Your task to perform on an android device: Search for a runner rug on Crate & Barrel Image 0: 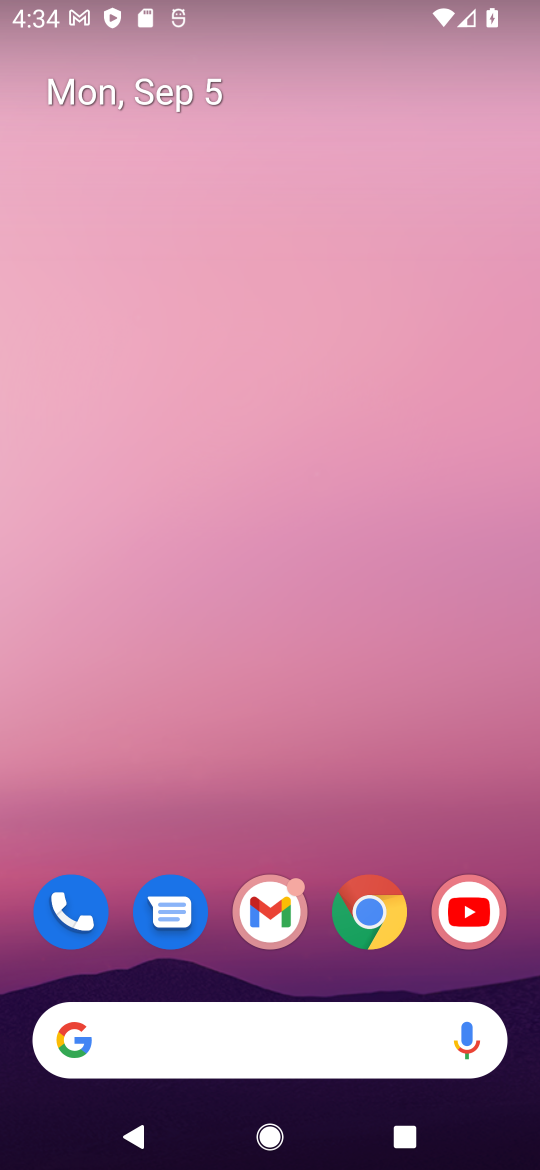
Step 0: click (366, 928)
Your task to perform on an android device: Search for a runner rug on Crate & Barrel Image 1: 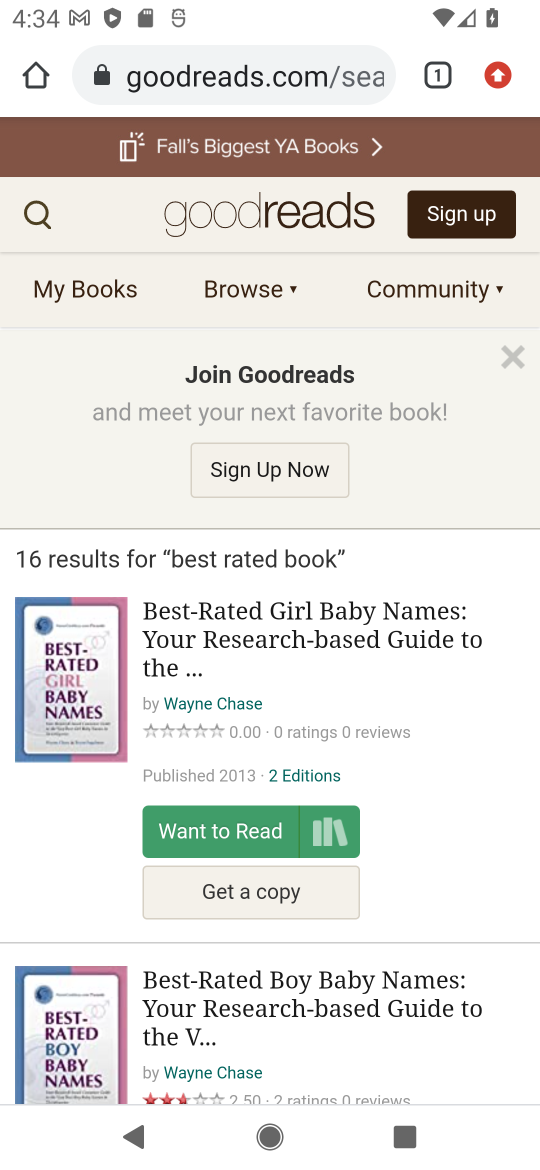
Step 1: click (192, 89)
Your task to perform on an android device: Search for a runner rug on Crate & Barrel Image 2: 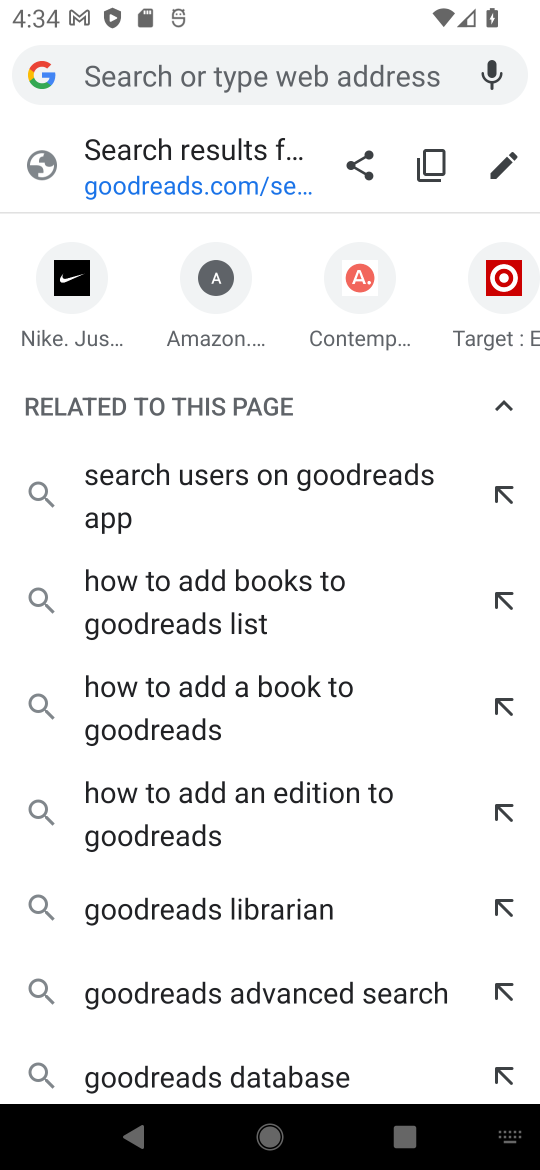
Step 2: type "crate & barrel"
Your task to perform on an android device: Search for a runner rug on Crate & Barrel Image 3: 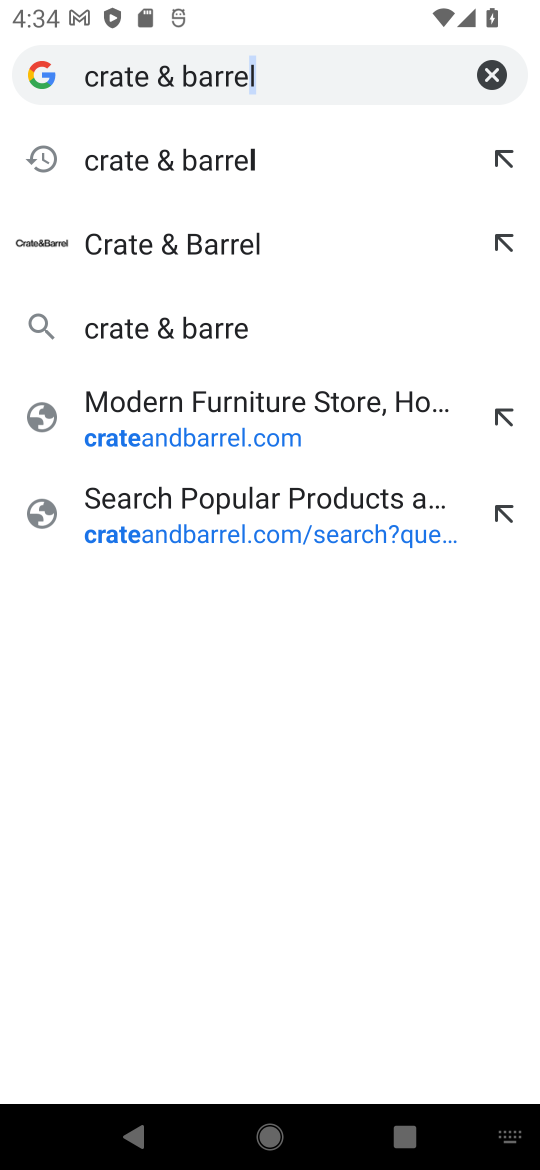
Step 3: type ""
Your task to perform on an android device: Search for a runner rug on Crate & Barrel Image 4: 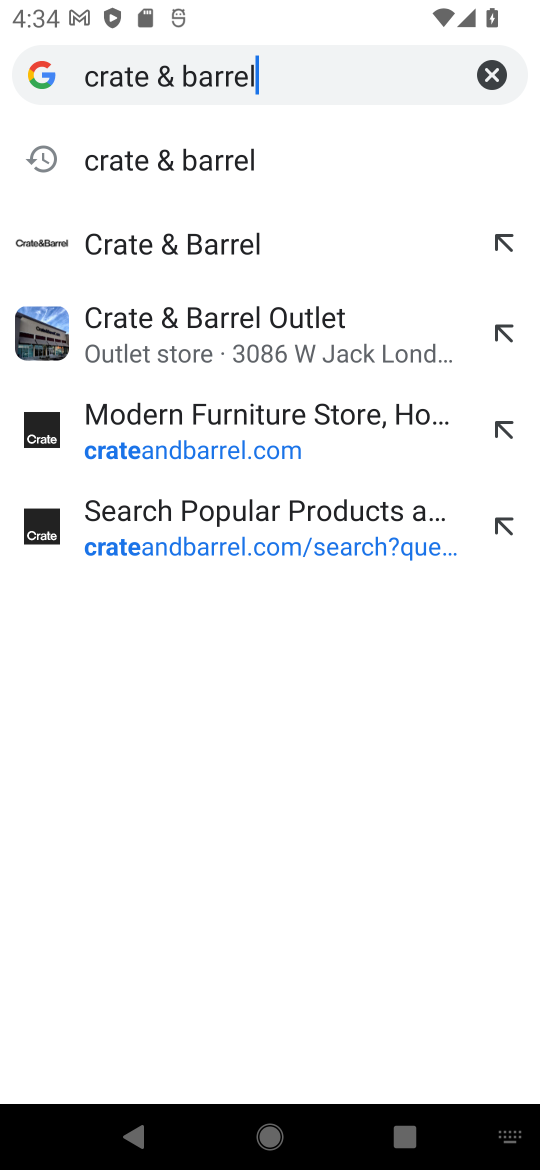
Step 4: press enter
Your task to perform on an android device: Search for a runner rug on Crate & Barrel Image 5: 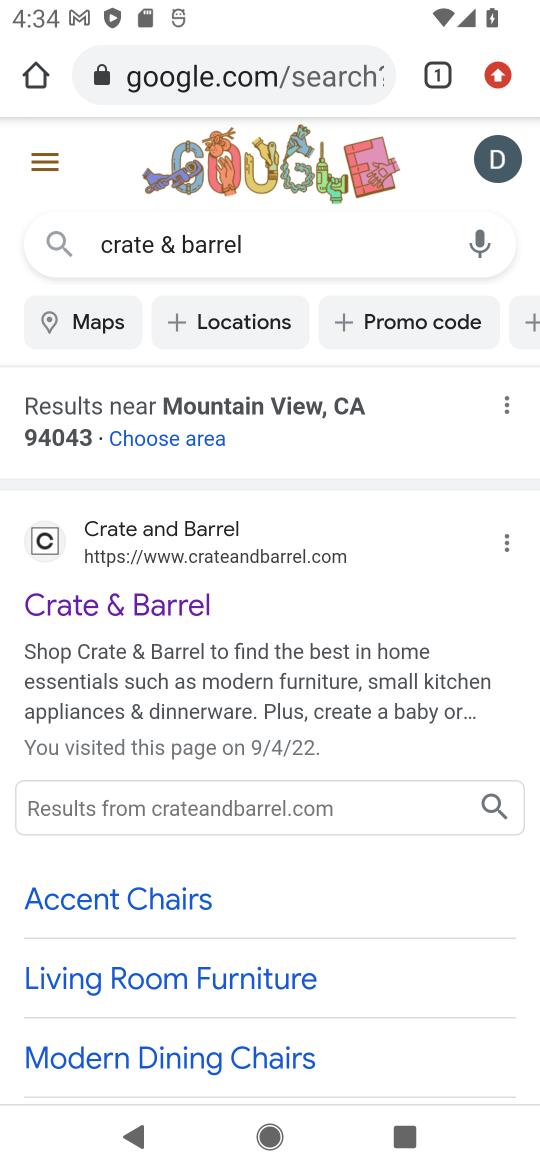
Step 5: click (143, 595)
Your task to perform on an android device: Search for a runner rug on Crate & Barrel Image 6: 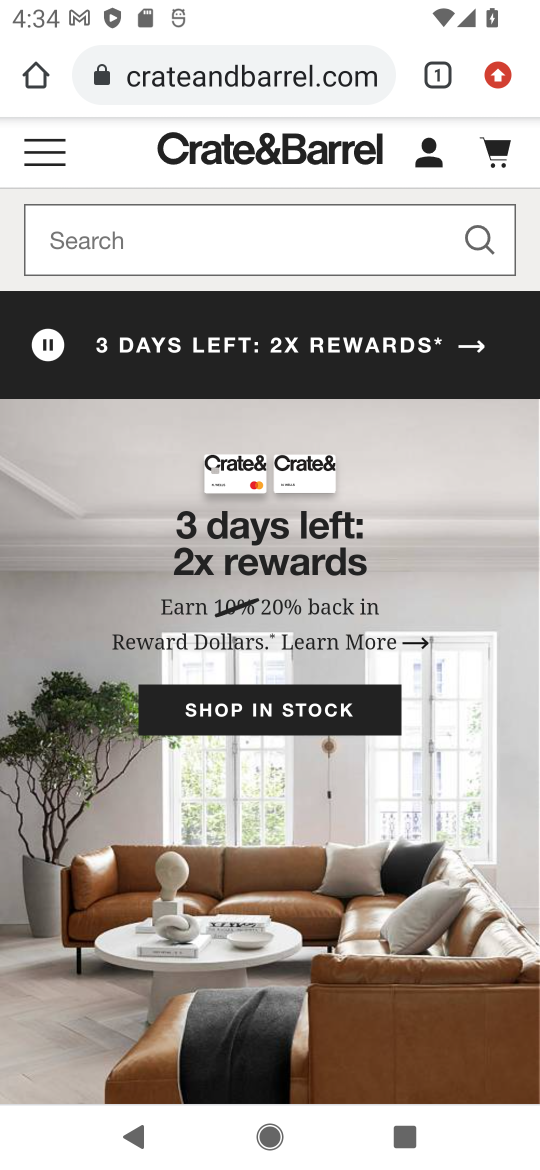
Step 6: click (154, 215)
Your task to perform on an android device: Search for a runner rug on Crate & Barrel Image 7: 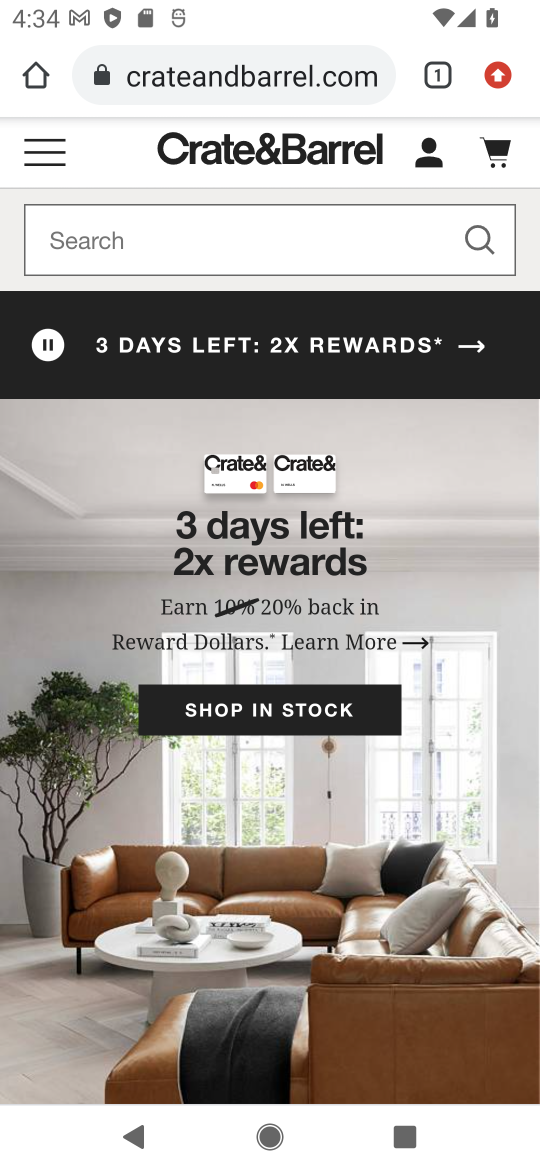
Step 7: click (212, 239)
Your task to perform on an android device: Search for a runner rug on Crate & Barrel Image 8: 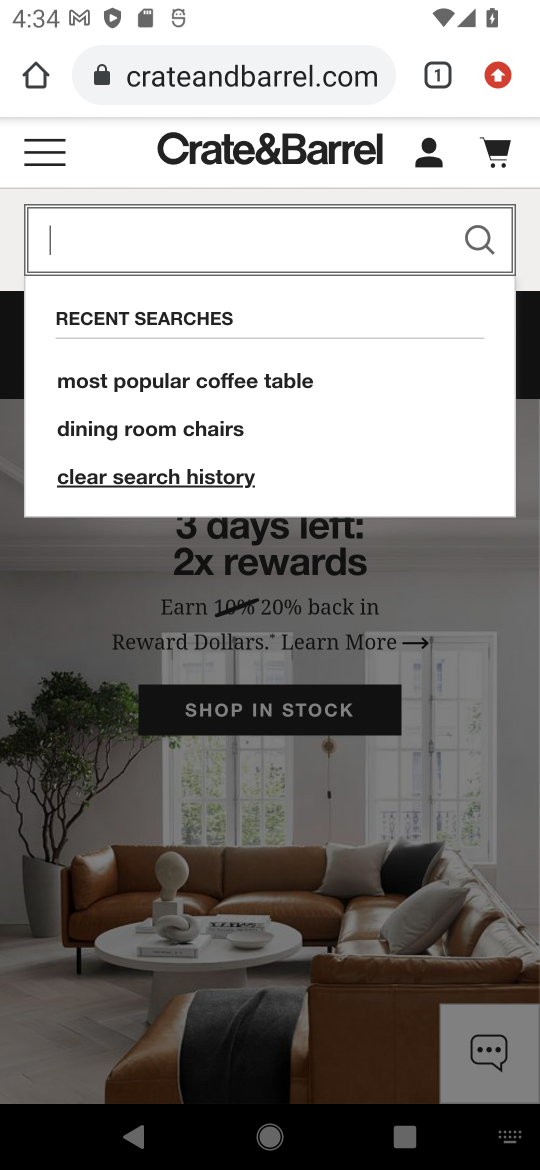
Step 8: type "runner rug"
Your task to perform on an android device: Search for a runner rug on Crate & Barrel Image 9: 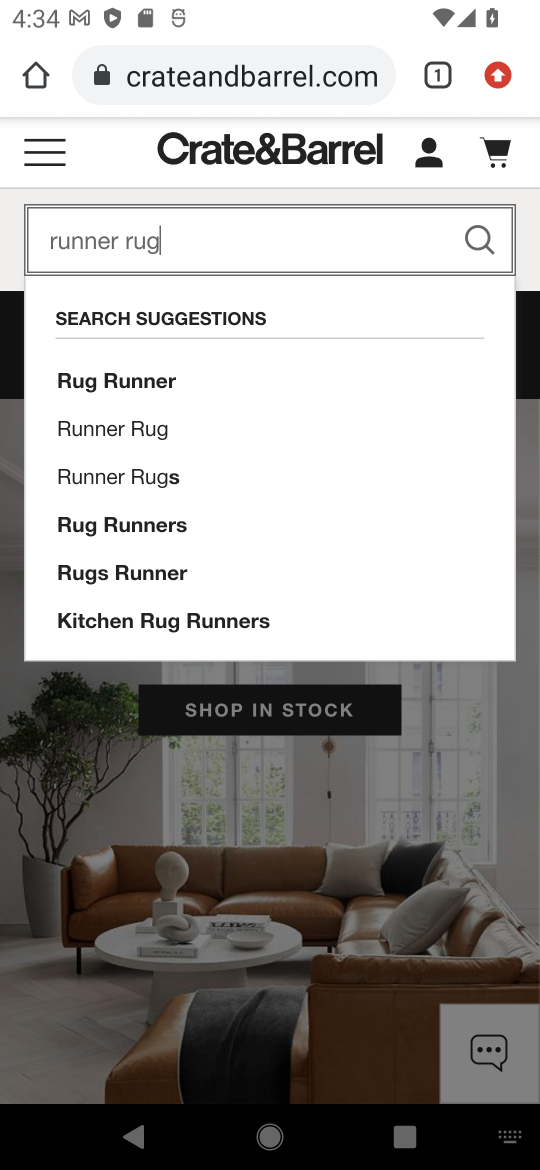
Step 9: press enter
Your task to perform on an android device: Search for a runner rug on Crate & Barrel Image 10: 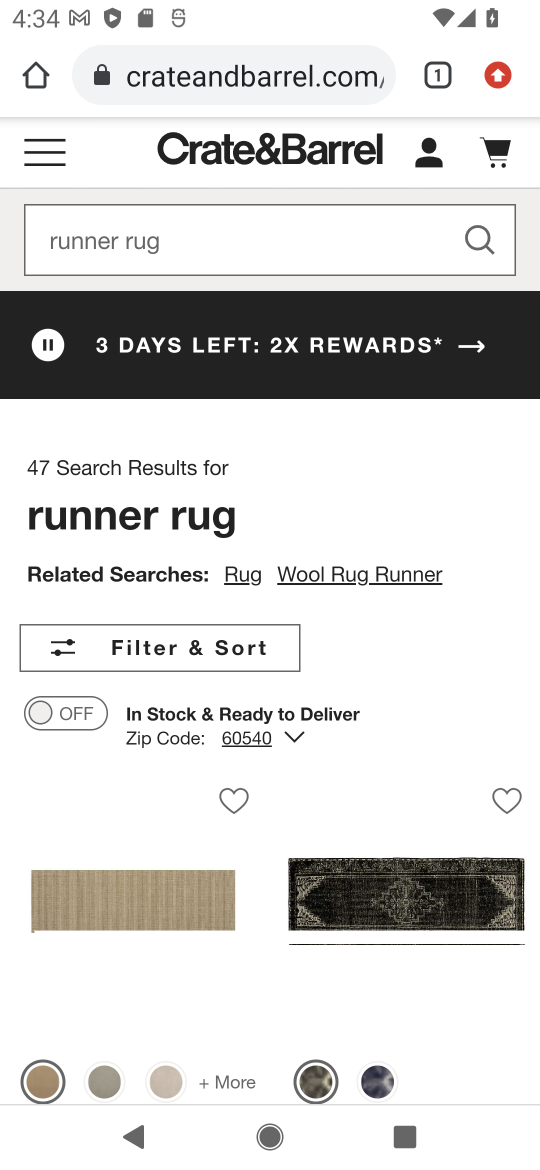
Step 10: task complete